Your task to perform on an android device: move an email to a new category in the gmail app Image 0: 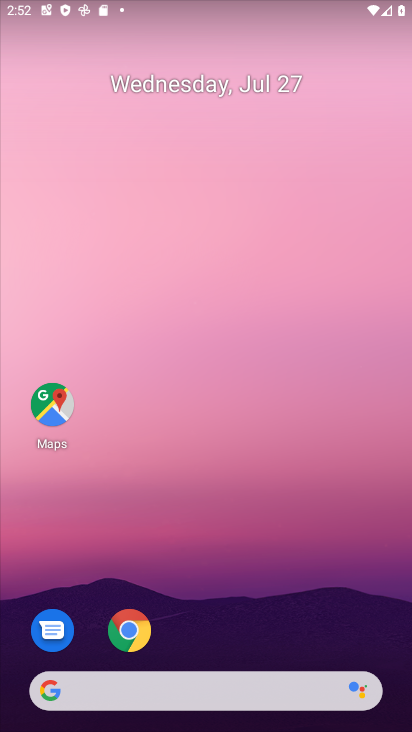
Step 0: drag from (401, 709) to (340, 141)
Your task to perform on an android device: move an email to a new category in the gmail app Image 1: 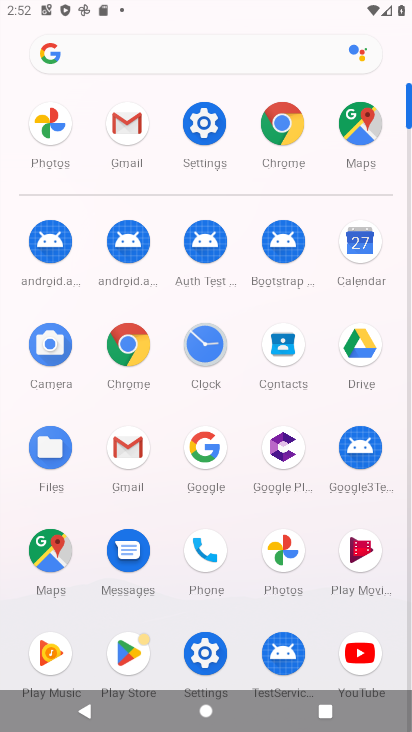
Step 1: click (117, 445)
Your task to perform on an android device: move an email to a new category in the gmail app Image 2: 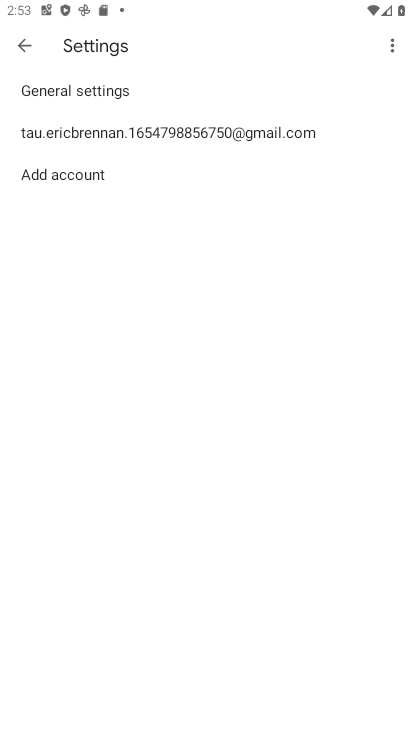
Step 2: click (117, 132)
Your task to perform on an android device: move an email to a new category in the gmail app Image 3: 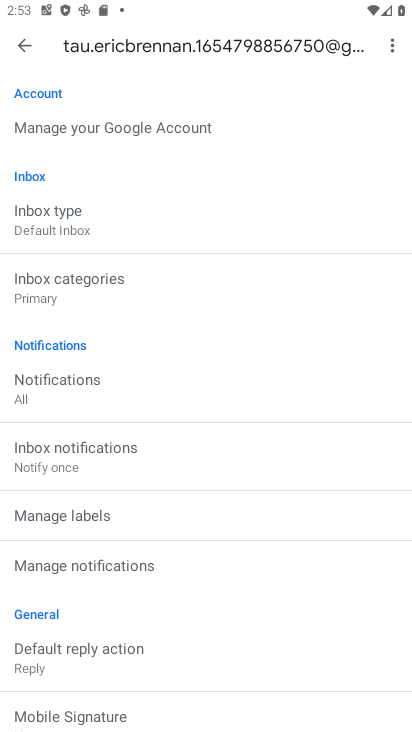
Step 3: click (20, 48)
Your task to perform on an android device: move an email to a new category in the gmail app Image 4: 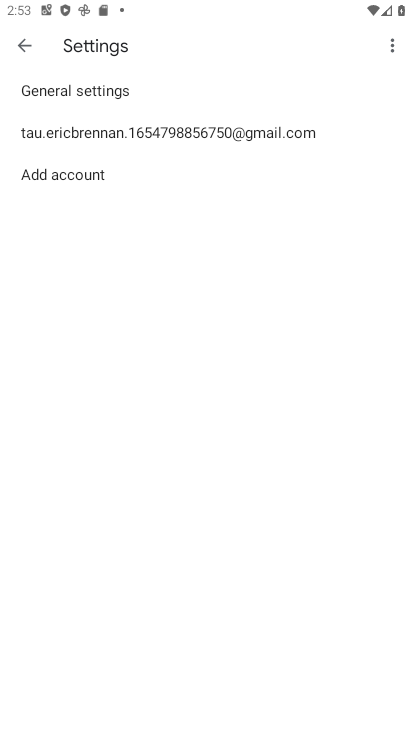
Step 4: click (187, 125)
Your task to perform on an android device: move an email to a new category in the gmail app Image 5: 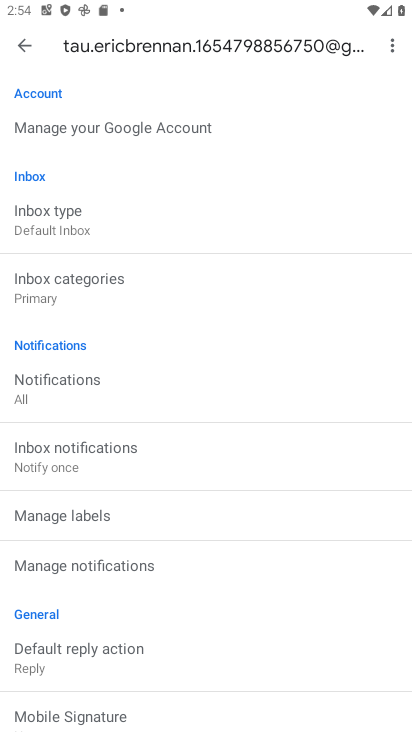
Step 5: task complete